Your task to perform on an android device: Toggle the flashlight Image 0: 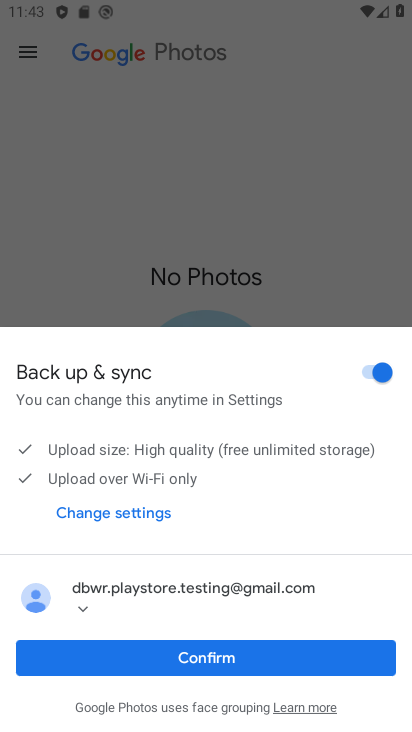
Step 0: press home button
Your task to perform on an android device: Toggle the flashlight Image 1: 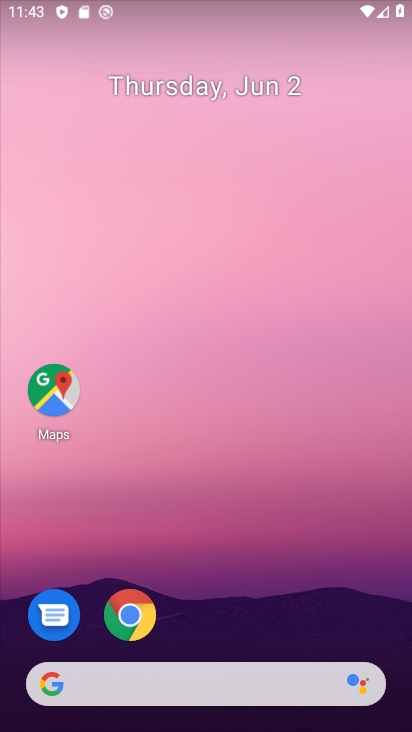
Step 1: task complete